Your task to perform on an android device: open chrome and create a bookmark for the current page Image 0: 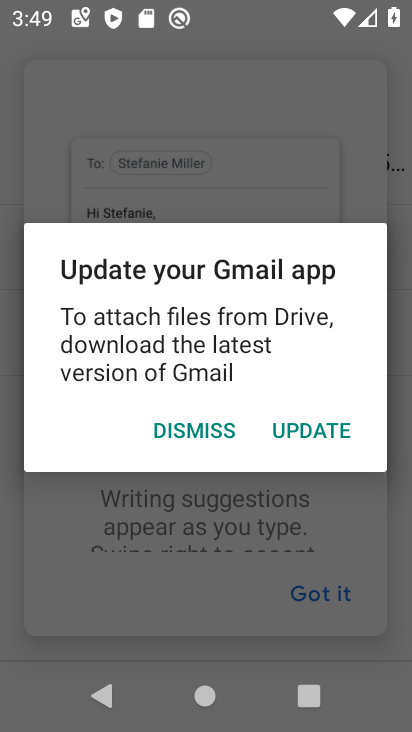
Step 0: press home button
Your task to perform on an android device: open chrome and create a bookmark for the current page Image 1: 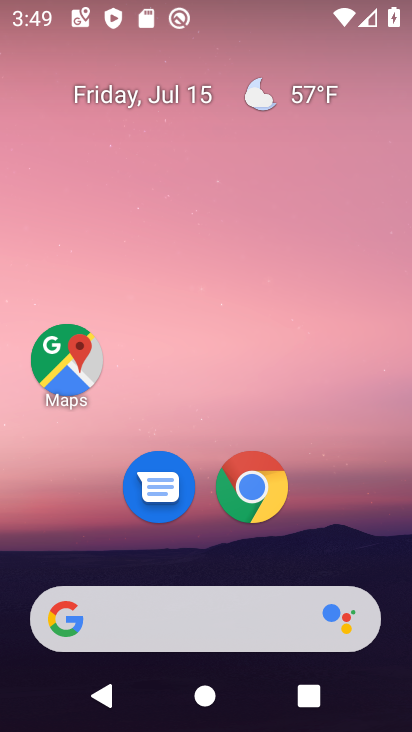
Step 1: drag from (231, 561) to (292, 109)
Your task to perform on an android device: open chrome and create a bookmark for the current page Image 2: 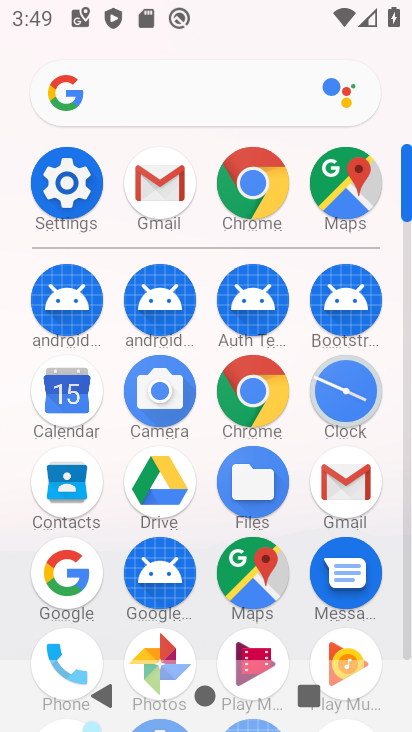
Step 2: click (243, 388)
Your task to perform on an android device: open chrome and create a bookmark for the current page Image 3: 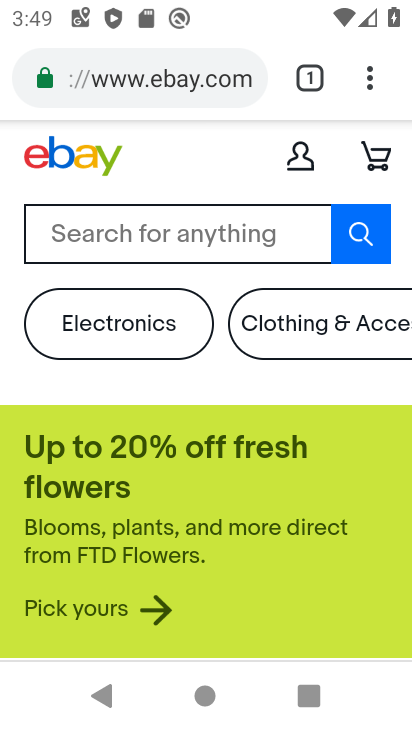
Step 3: click (372, 98)
Your task to perform on an android device: open chrome and create a bookmark for the current page Image 4: 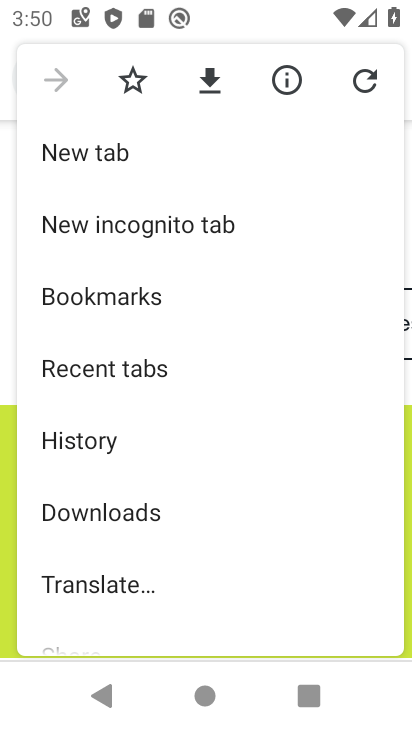
Step 4: click (139, 88)
Your task to perform on an android device: open chrome and create a bookmark for the current page Image 5: 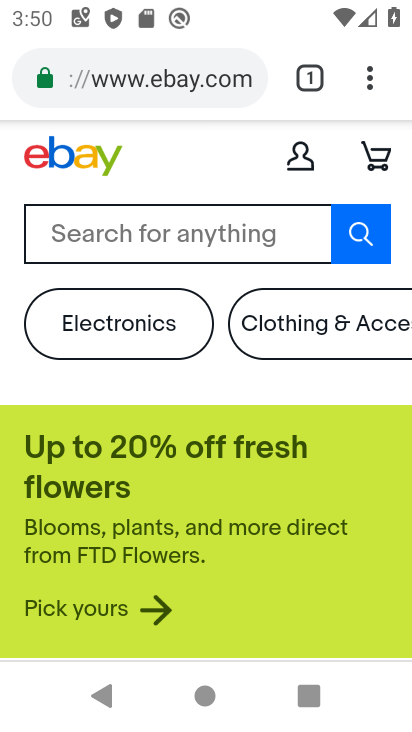
Step 5: task complete